Your task to perform on an android device: check data usage Image 0: 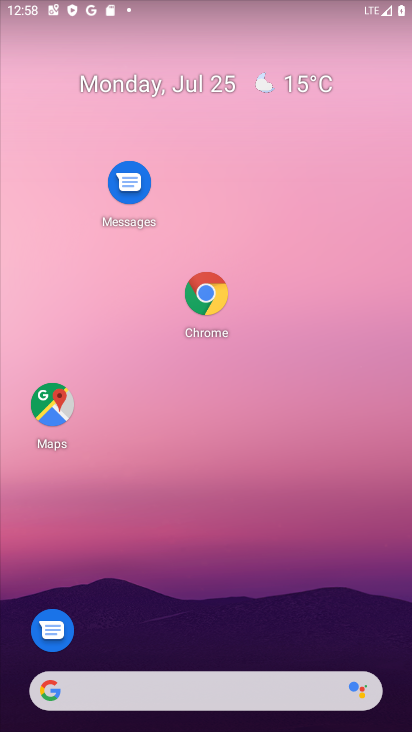
Step 0: drag from (236, 581) to (201, 163)
Your task to perform on an android device: check data usage Image 1: 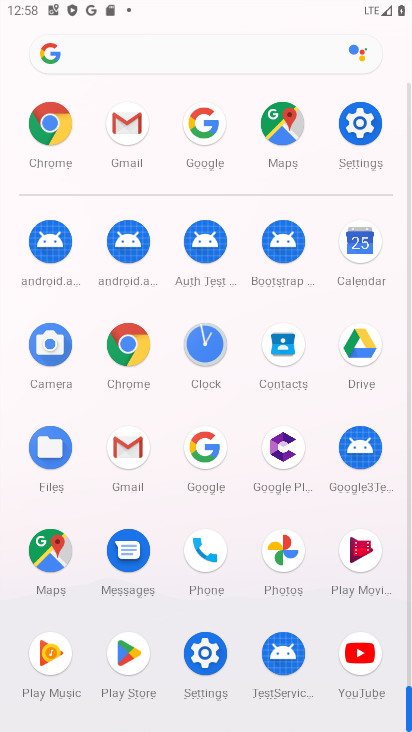
Step 1: drag from (250, 6) to (259, 720)
Your task to perform on an android device: check data usage Image 2: 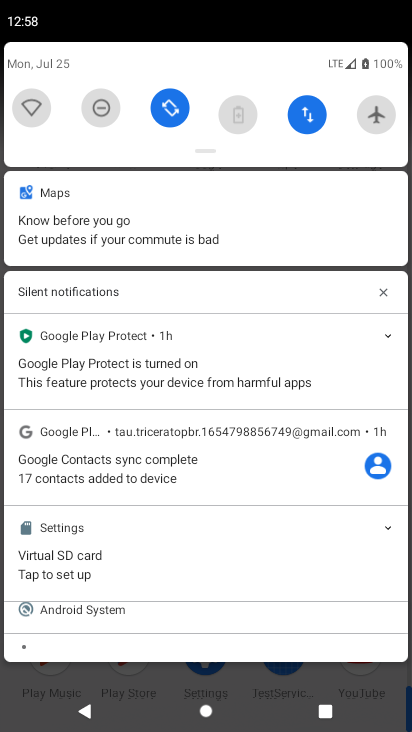
Step 2: click (304, 99)
Your task to perform on an android device: check data usage Image 3: 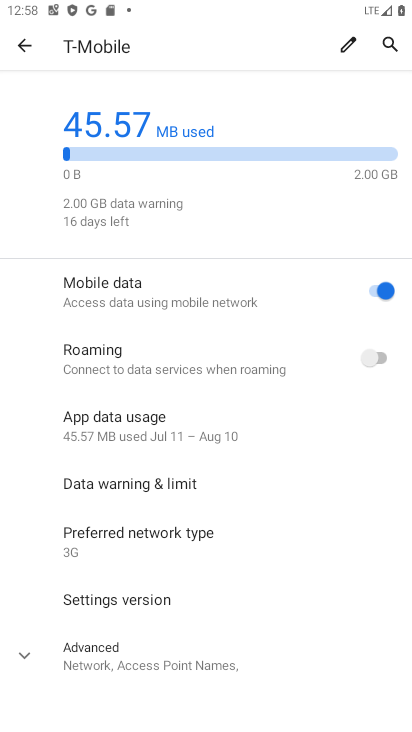
Step 3: task complete